Your task to perform on an android device: toggle airplane mode Image 0: 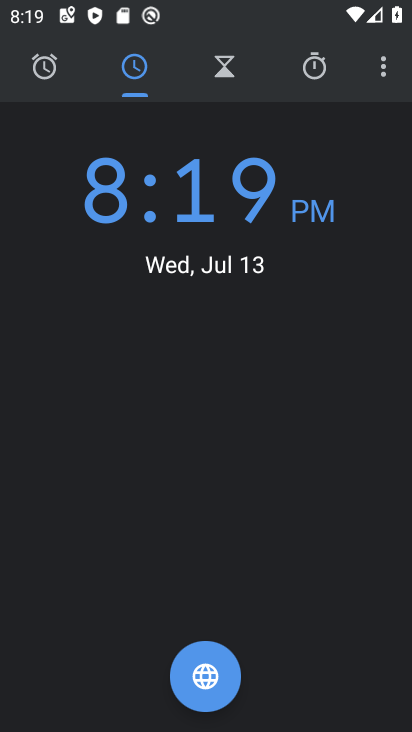
Step 0: press home button
Your task to perform on an android device: toggle airplane mode Image 1: 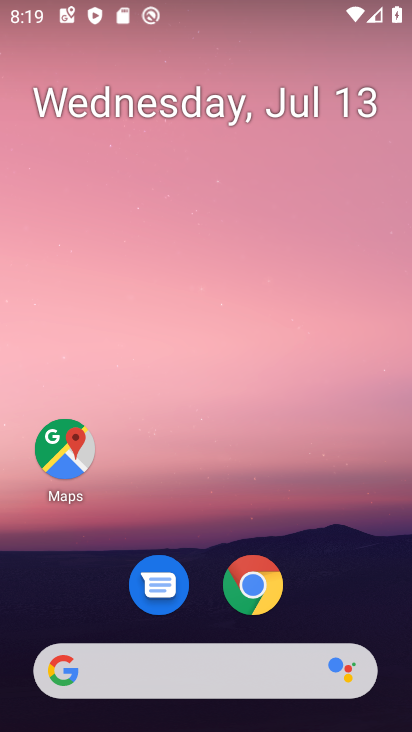
Step 1: drag from (284, 534) to (220, 17)
Your task to perform on an android device: toggle airplane mode Image 2: 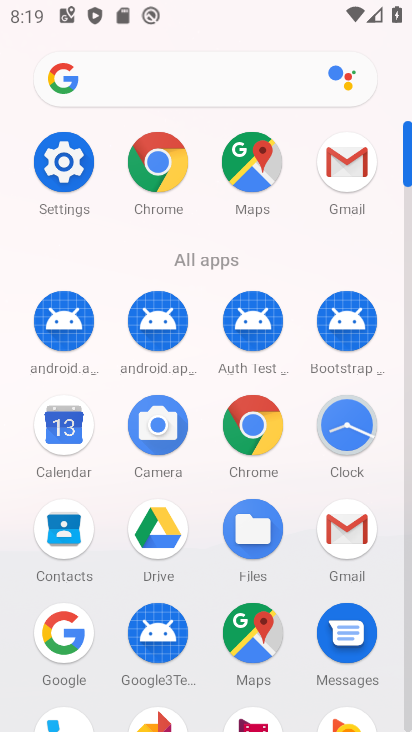
Step 2: click (72, 159)
Your task to perform on an android device: toggle airplane mode Image 3: 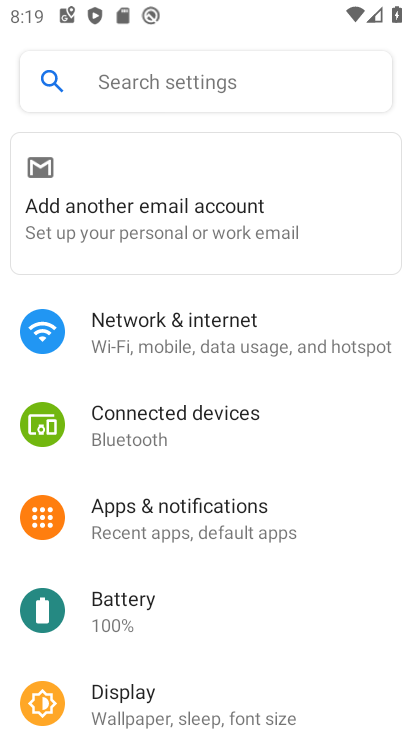
Step 3: click (245, 334)
Your task to perform on an android device: toggle airplane mode Image 4: 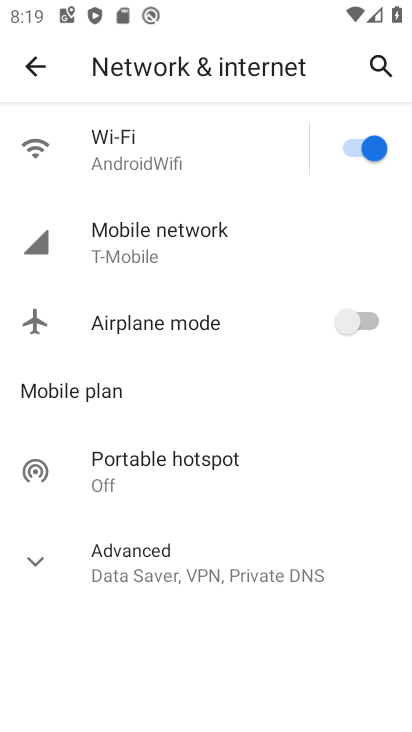
Step 4: click (358, 317)
Your task to perform on an android device: toggle airplane mode Image 5: 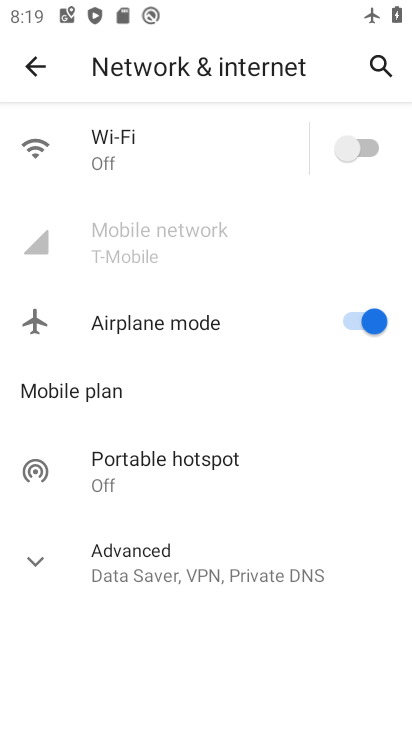
Step 5: task complete